Your task to perform on an android device: remove spam from my inbox in the gmail app Image 0: 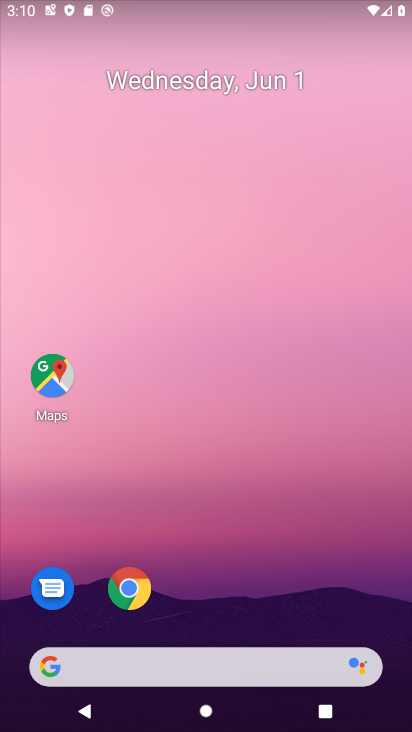
Step 0: drag from (299, 566) to (294, 128)
Your task to perform on an android device: remove spam from my inbox in the gmail app Image 1: 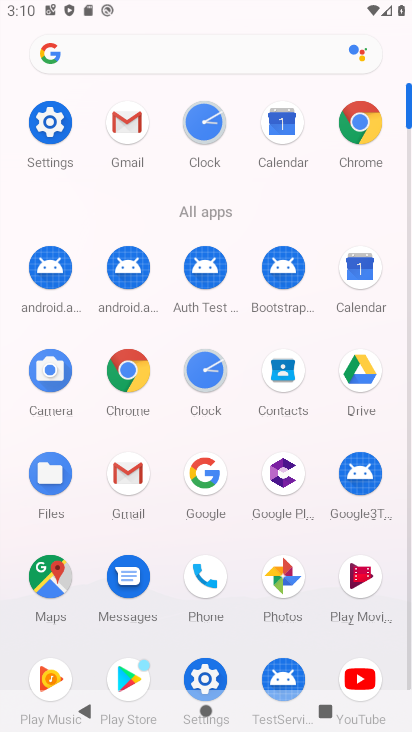
Step 1: click (118, 476)
Your task to perform on an android device: remove spam from my inbox in the gmail app Image 2: 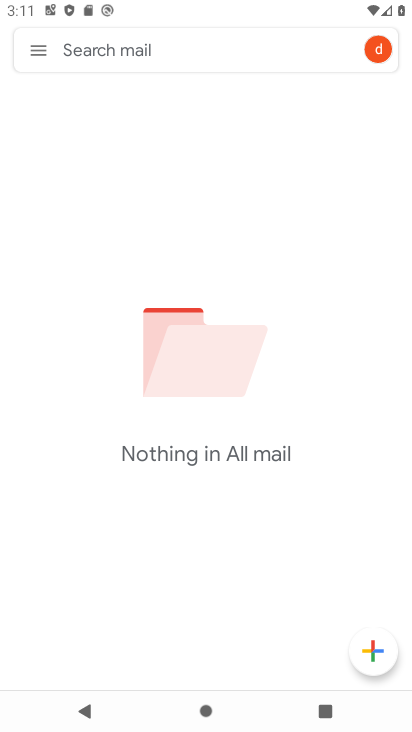
Step 2: click (31, 55)
Your task to perform on an android device: remove spam from my inbox in the gmail app Image 3: 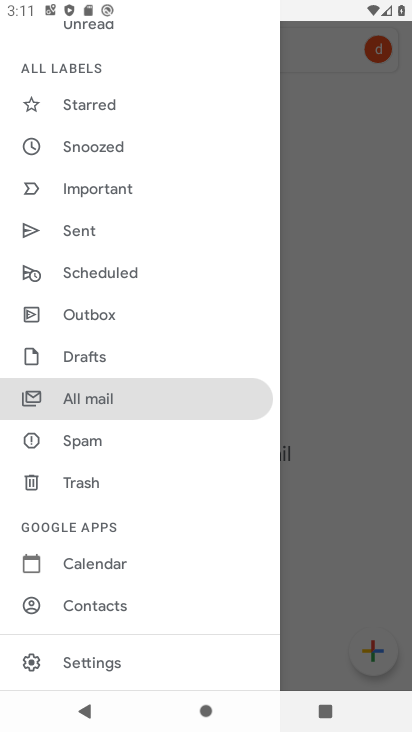
Step 3: click (117, 446)
Your task to perform on an android device: remove spam from my inbox in the gmail app Image 4: 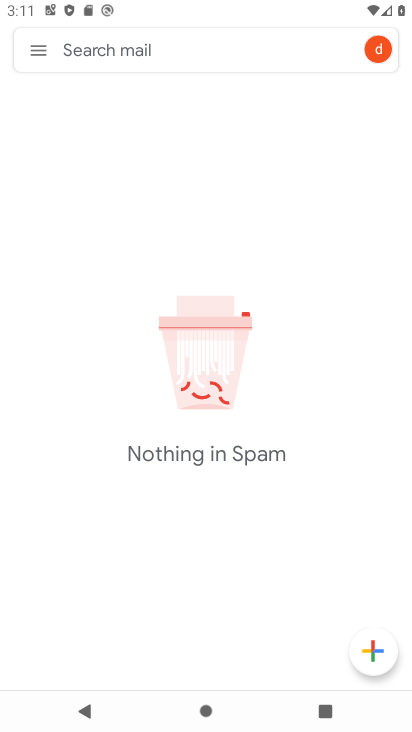
Step 4: task complete